Your task to perform on an android device: Open calendar and show me the first week of next month Image 0: 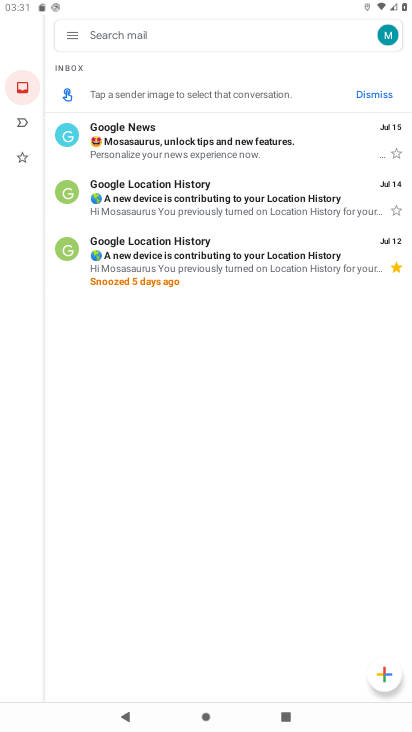
Step 0: press home button
Your task to perform on an android device: Open calendar and show me the first week of next month Image 1: 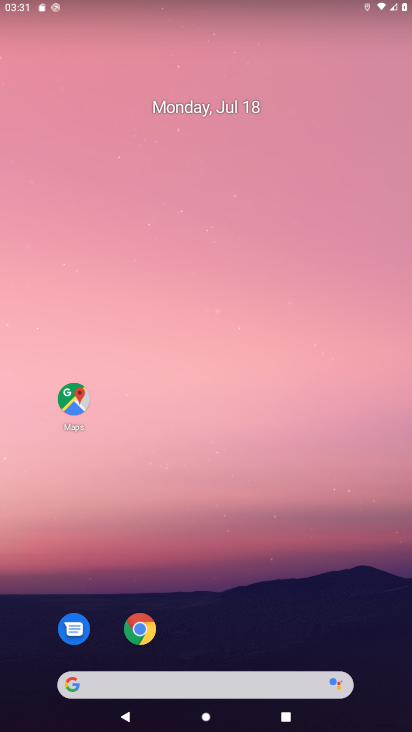
Step 1: drag from (356, 566) to (373, 206)
Your task to perform on an android device: Open calendar and show me the first week of next month Image 2: 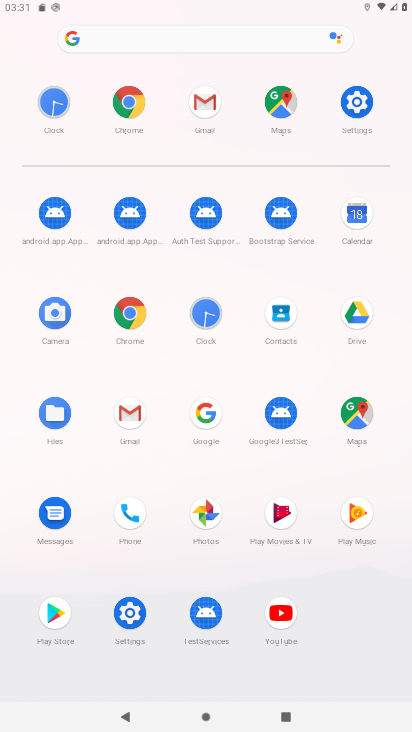
Step 2: click (363, 215)
Your task to perform on an android device: Open calendar and show me the first week of next month Image 3: 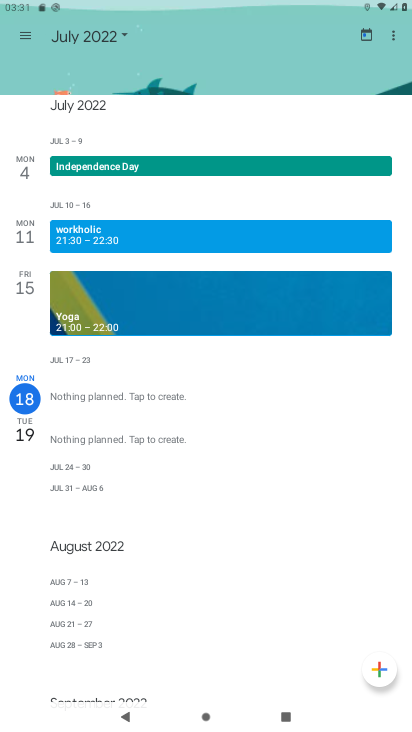
Step 3: click (120, 34)
Your task to perform on an android device: Open calendar and show me the first week of next month Image 4: 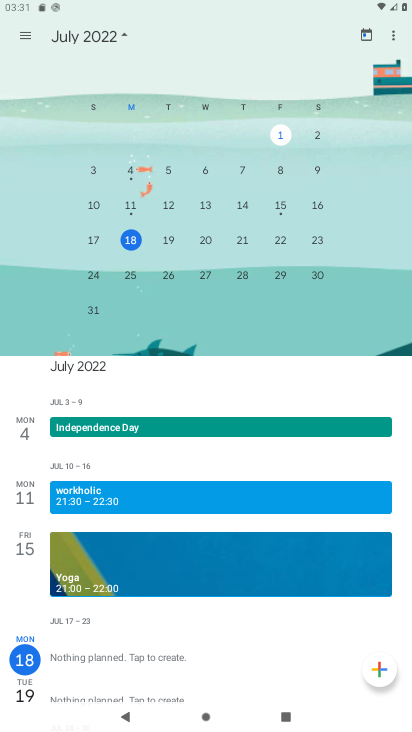
Step 4: task complete